Your task to perform on an android device: Open eBay Image 0: 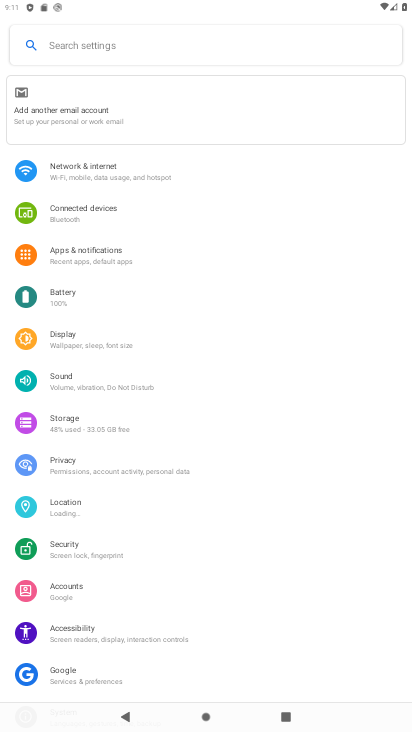
Step 0: press home button
Your task to perform on an android device: Open eBay Image 1: 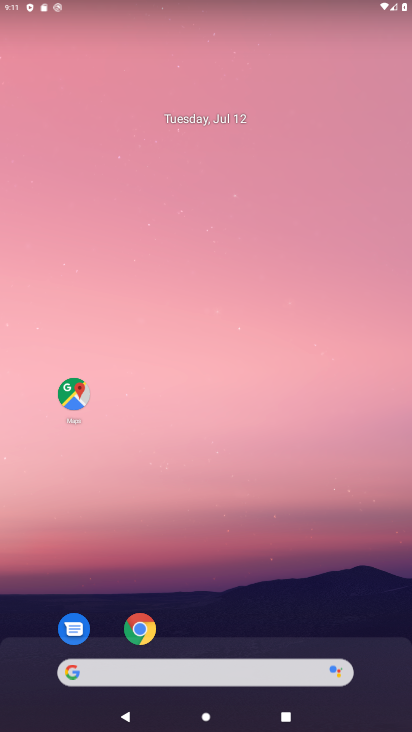
Step 1: click (138, 628)
Your task to perform on an android device: Open eBay Image 2: 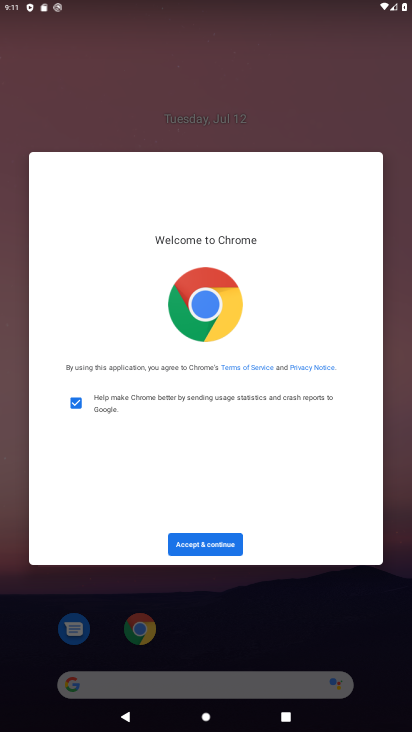
Step 2: click (205, 547)
Your task to perform on an android device: Open eBay Image 3: 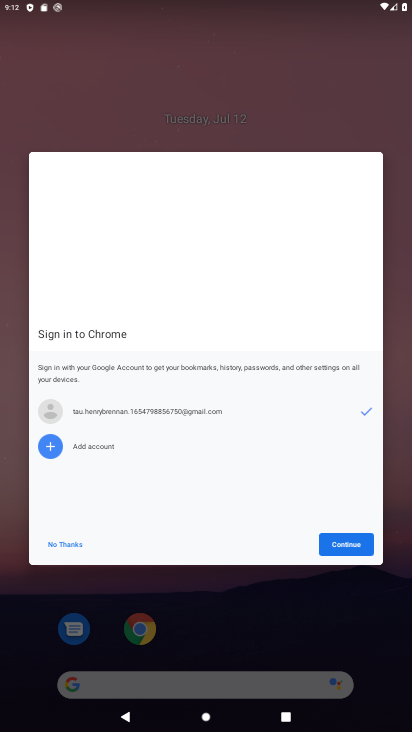
Step 3: click (339, 542)
Your task to perform on an android device: Open eBay Image 4: 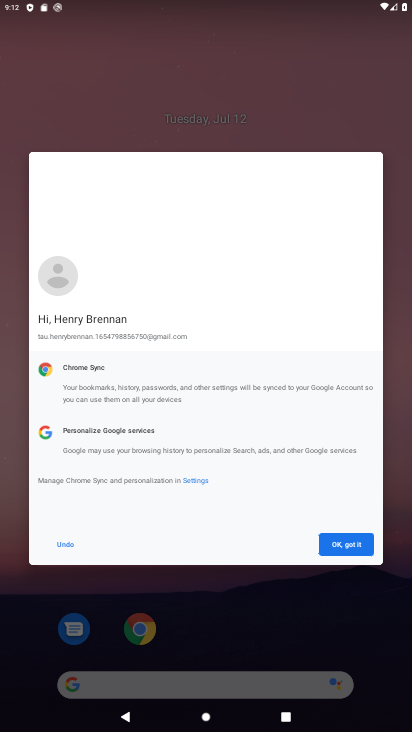
Step 4: click (339, 542)
Your task to perform on an android device: Open eBay Image 5: 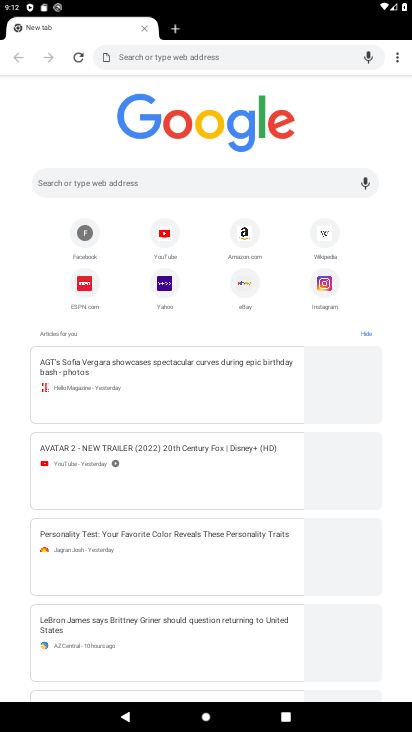
Step 5: click (154, 181)
Your task to perform on an android device: Open eBay Image 6: 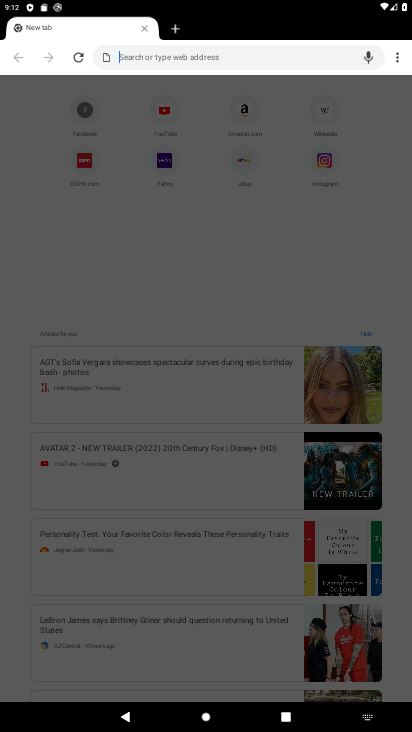
Step 6: type "eBay"
Your task to perform on an android device: Open eBay Image 7: 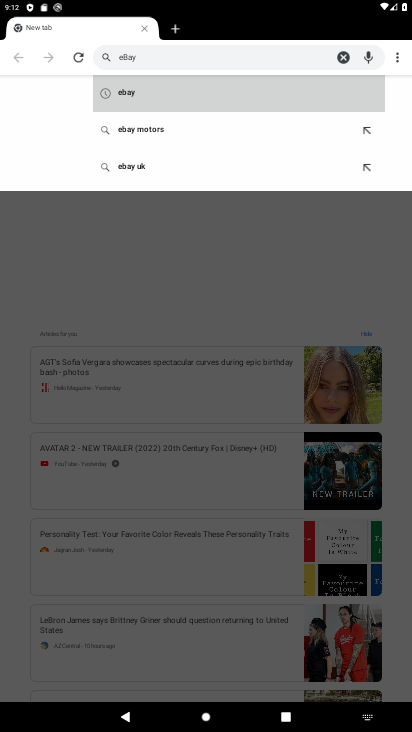
Step 7: click (155, 93)
Your task to perform on an android device: Open eBay Image 8: 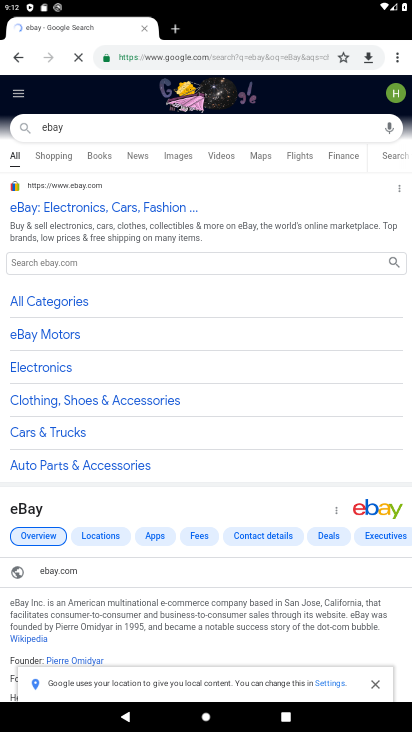
Step 8: click (32, 201)
Your task to perform on an android device: Open eBay Image 9: 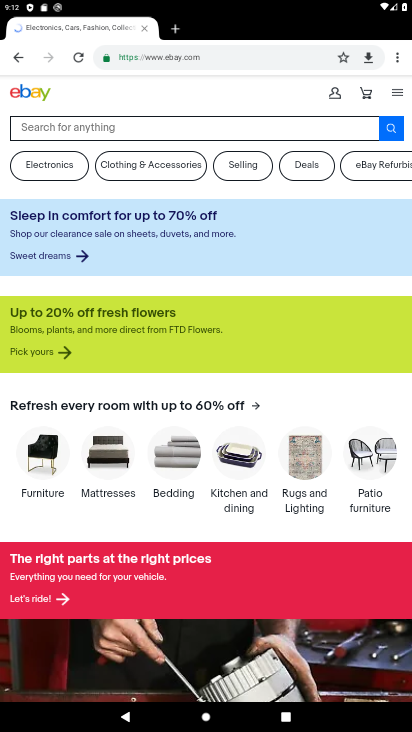
Step 9: task complete